Your task to perform on an android device: allow cookies in the chrome app Image 0: 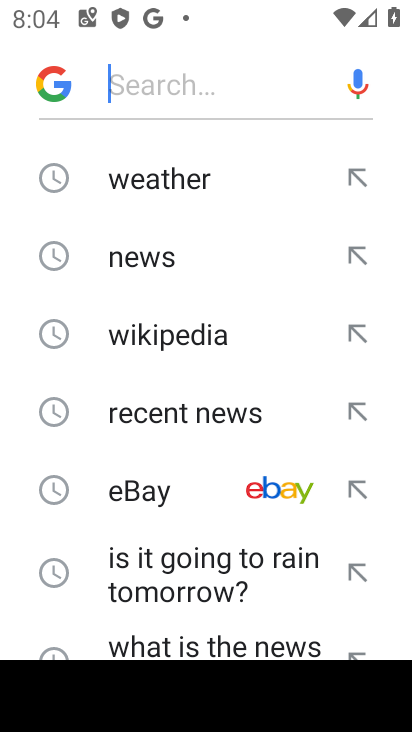
Step 0: press home button
Your task to perform on an android device: allow cookies in the chrome app Image 1: 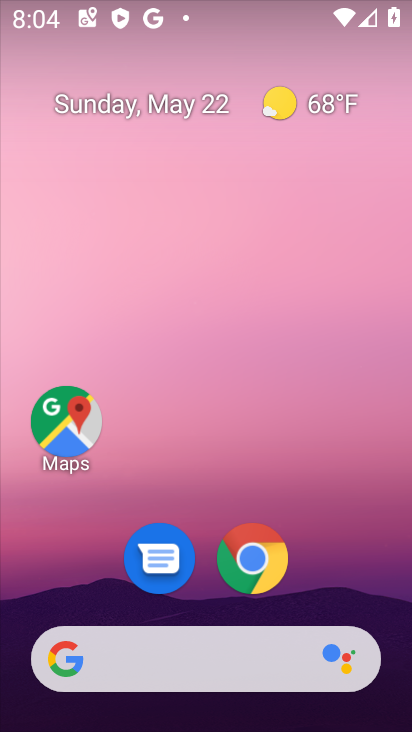
Step 1: drag from (306, 548) to (337, 213)
Your task to perform on an android device: allow cookies in the chrome app Image 2: 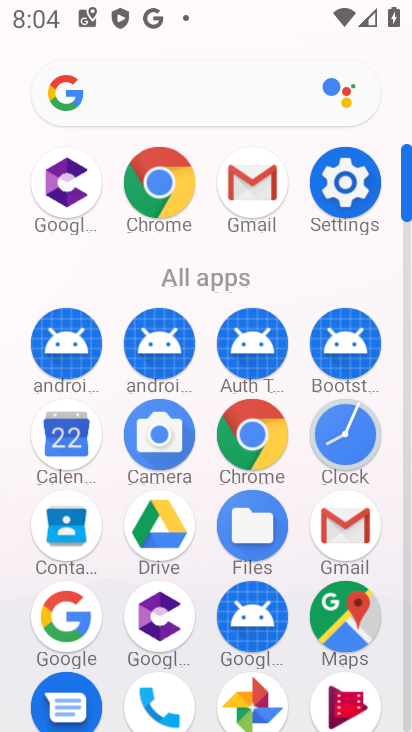
Step 2: click (157, 173)
Your task to perform on an android device: allow cookies in the chrome app Image 3: 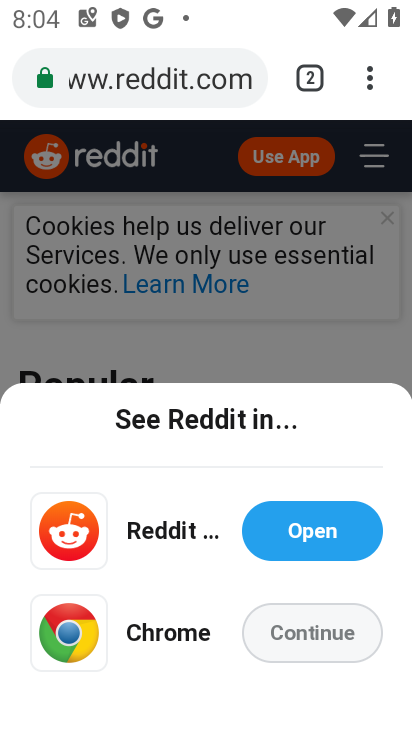
Step 3: click (382, 87)
Your task to perform on an android device: allow cookies in the chrome app Image 4: 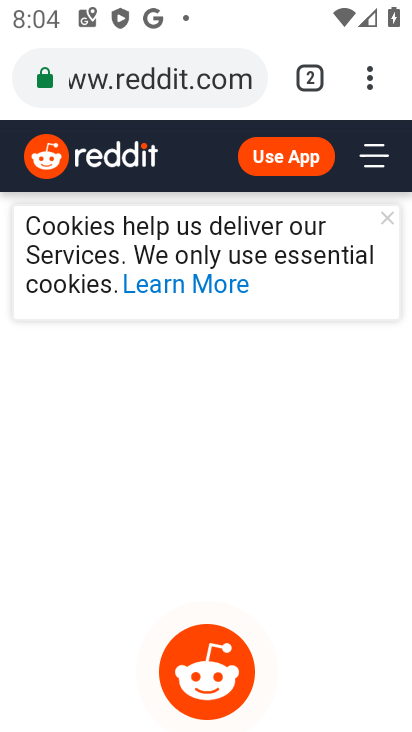
Step 4: click (383, 99)
Your task to perform on an android device: allow cookies in the chrome app Image 5: 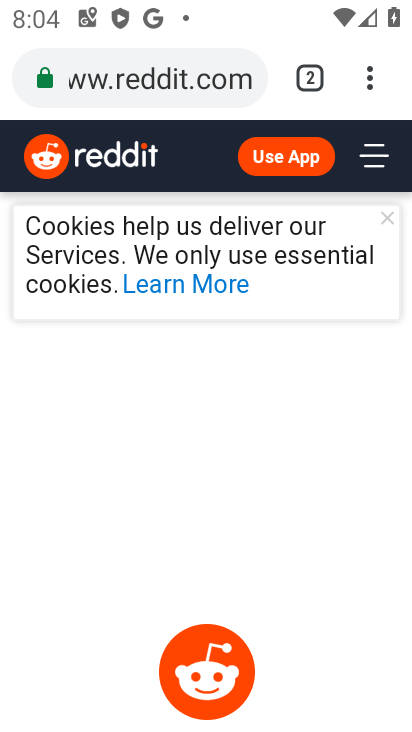
Step 5: click (375, 68)
Your task to perform on an android device: allow cookies in the chrome app Image 6: 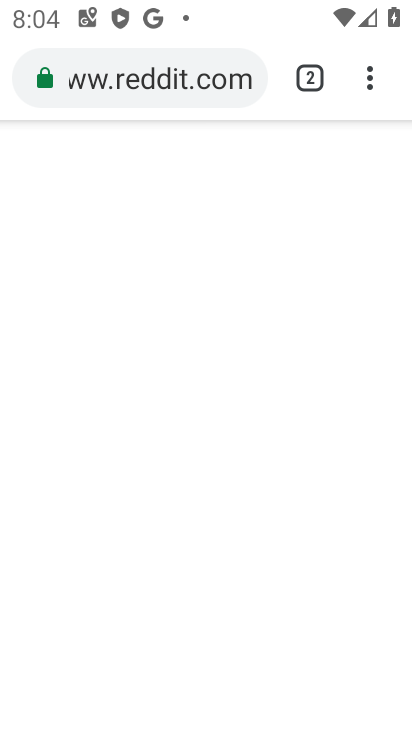
Step 6: click (374, 67)
Your task to perform on an android device: allow cookies in the chrome app Image 7: 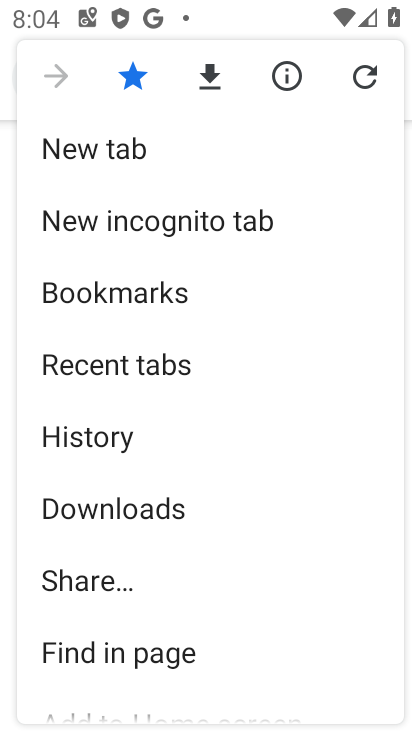
Step 7: drag from (217, 634) to (408, 230)
Your task to perform on an android device: allow cookies in the chrome app Image 8: 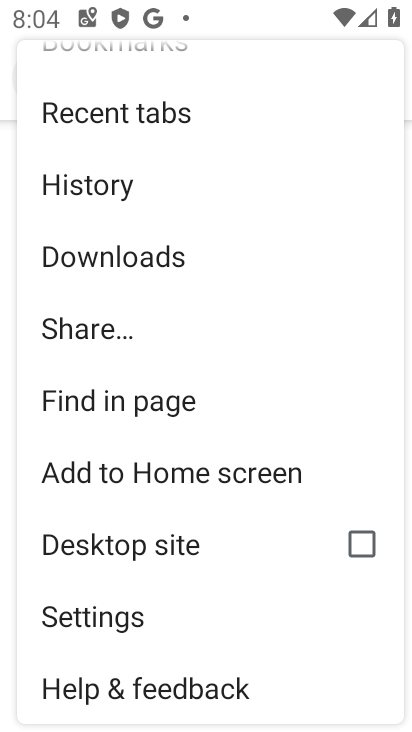
Step 8: click (99, 595)
Your task to perform on an android device: allow cookies in the chrome app Image 9: 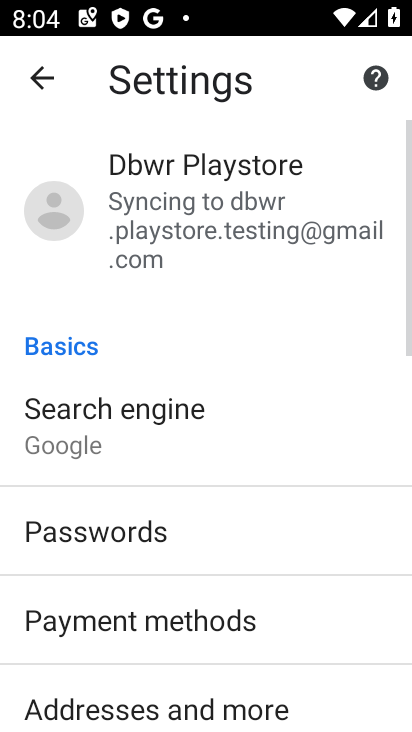
Step 9: drag from (231, 631) to (268, 216)
Your task to perform on an android device: allow cookies in the chrome app Image 10: 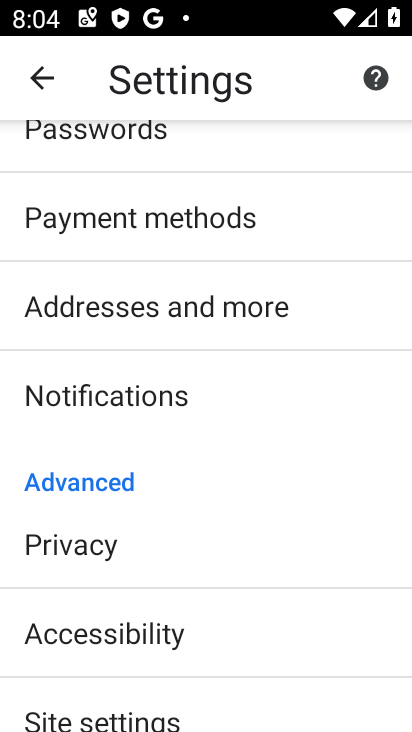
Step 10: drag from (147, 642) to (175, 474)
Your task to perform on an android device: allow cookies in the chrome app Image 11: 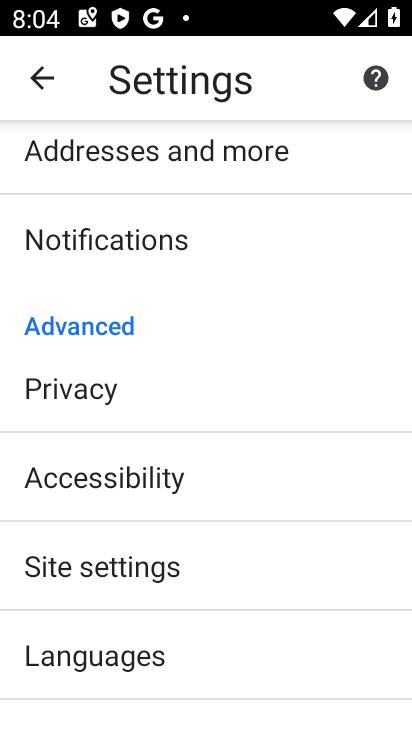
Step 11: drag from (139, 478) to (164, 336)
Your task to perform on an android device: allow cookies in the chrome app Image 12: 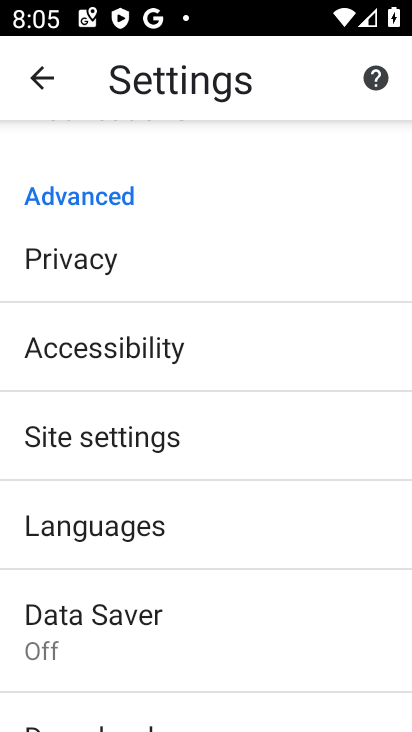
Step 12: click (128, 427)
Your task to perform on an android device: allow cookies in the chrome app Image 13: 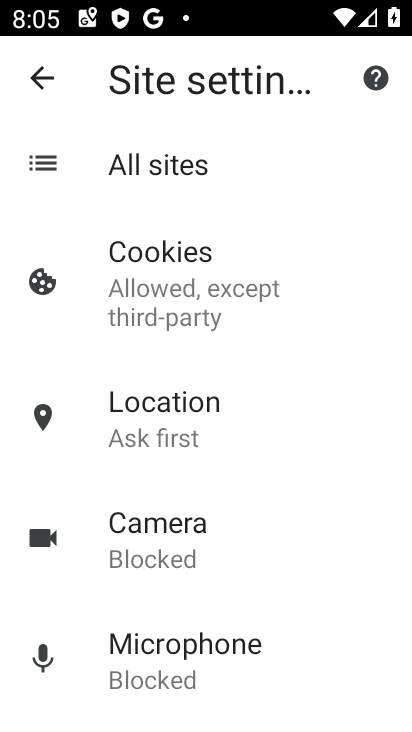
Step 13: drag from (293, 589) to (282, 531)
Your task to perform on an android device: allow cookies in the chrome app Image 14: 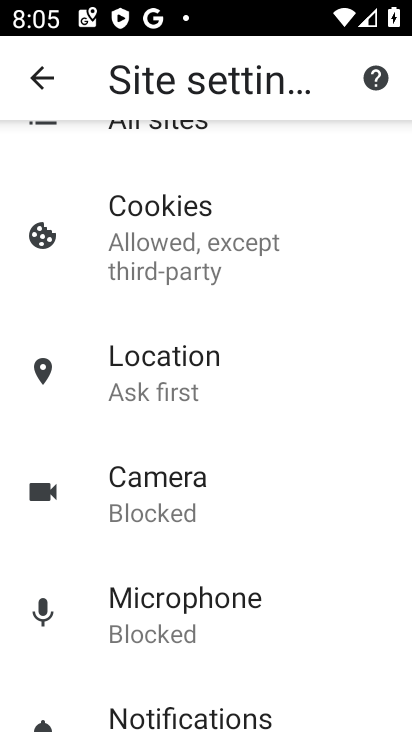
Step 14: click (215, 240)
Your task to perform on an android device: allow cookies in the chrome app Image 15: 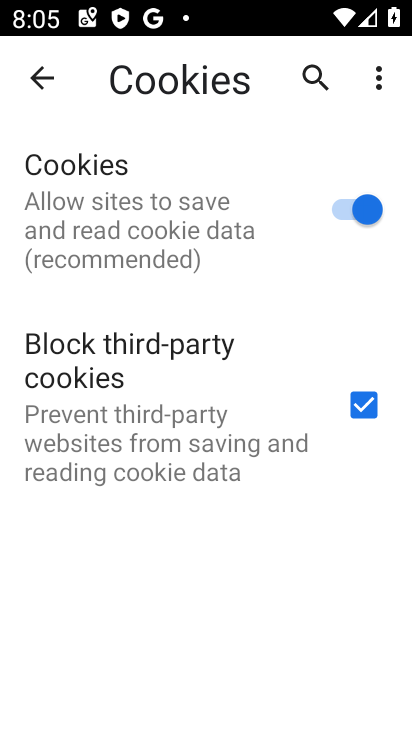
Step 15: task complete